Your task to perform on an android device: Search for Mexican restaurants on Maps Image 0: 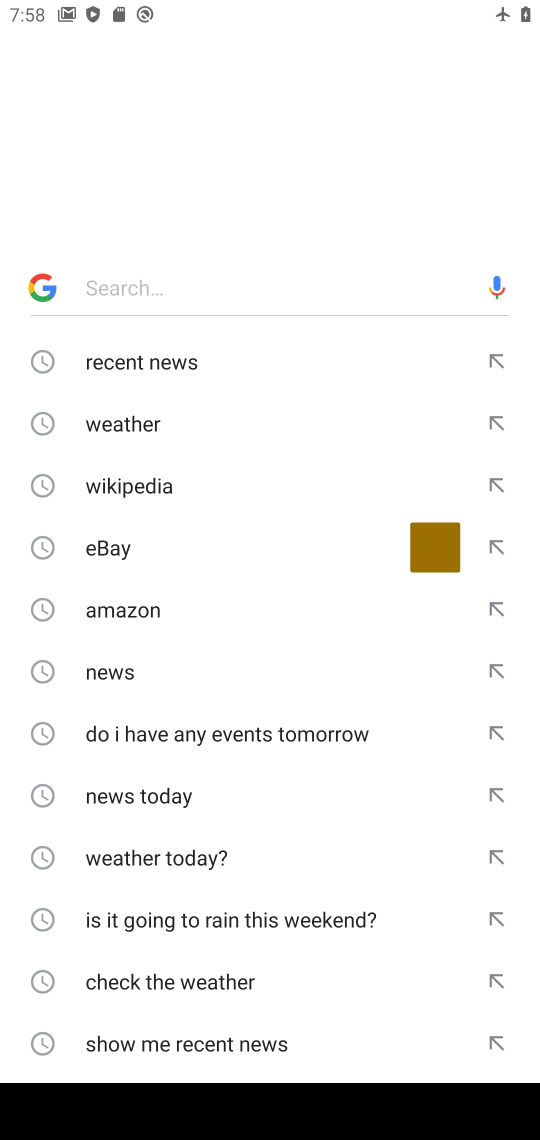
Step 0: press home button
Your task to perform on an android device: Search for Mexican restaurants on Maps Image 1: 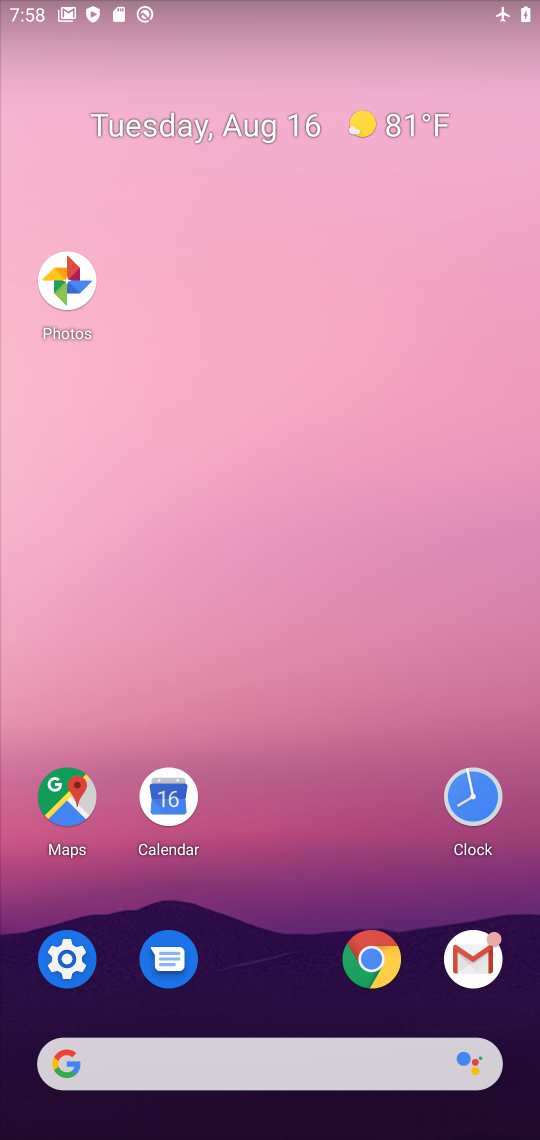
Step 1: click (60, 794)
Your task to perform on an android device: Search for Mexican restaurants on Maps Image 2: 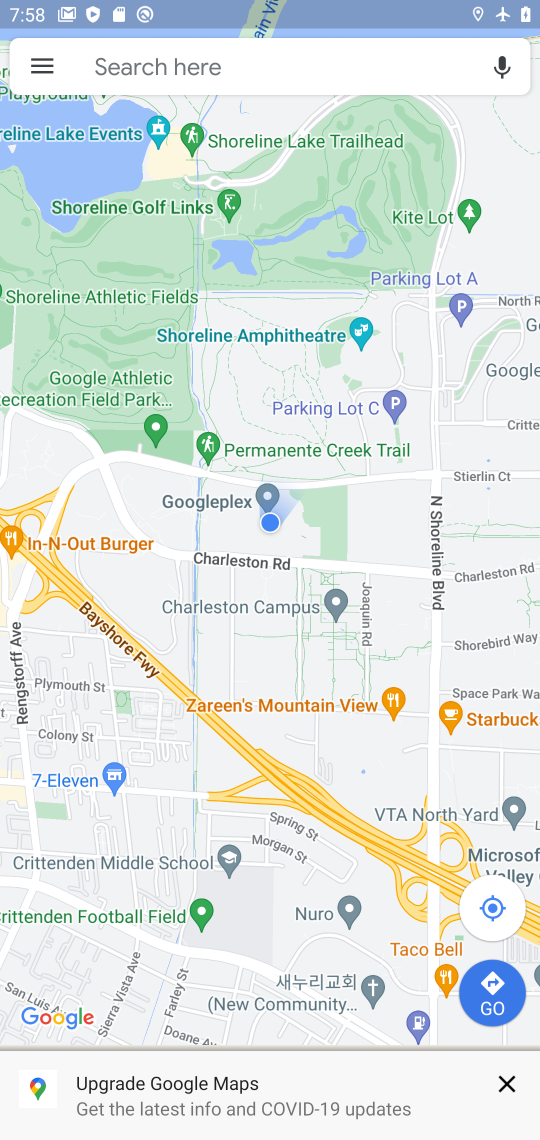
Step 2: click (173, 55)
Your task to perform on an android device: Search for Mexican restaurants on Maps Image 3: 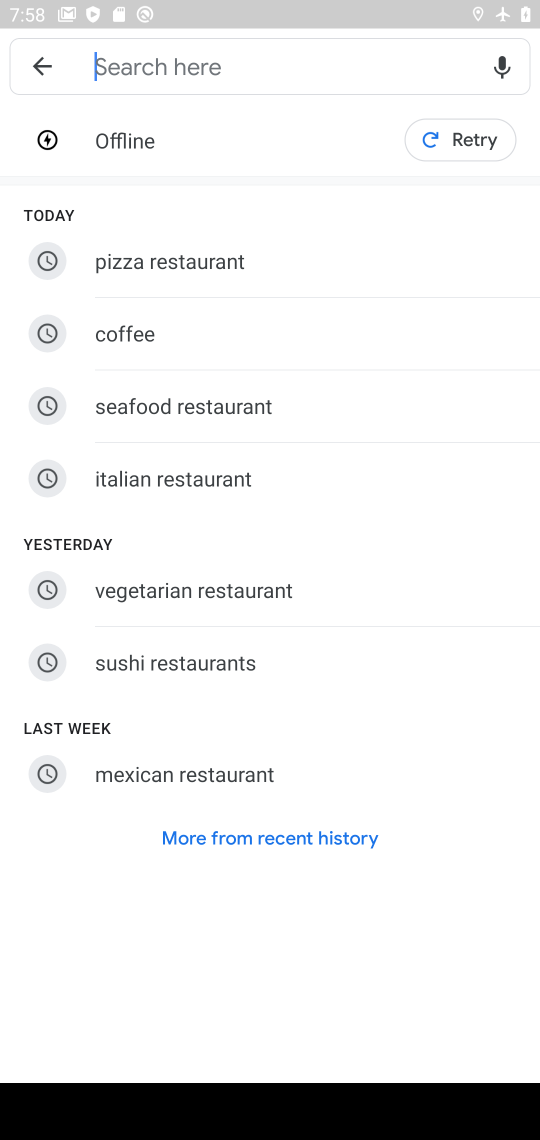
Step 3: click (178, 775)
Your task to perform on an android device: Search for Mexican restaurants on Maps Image 4: 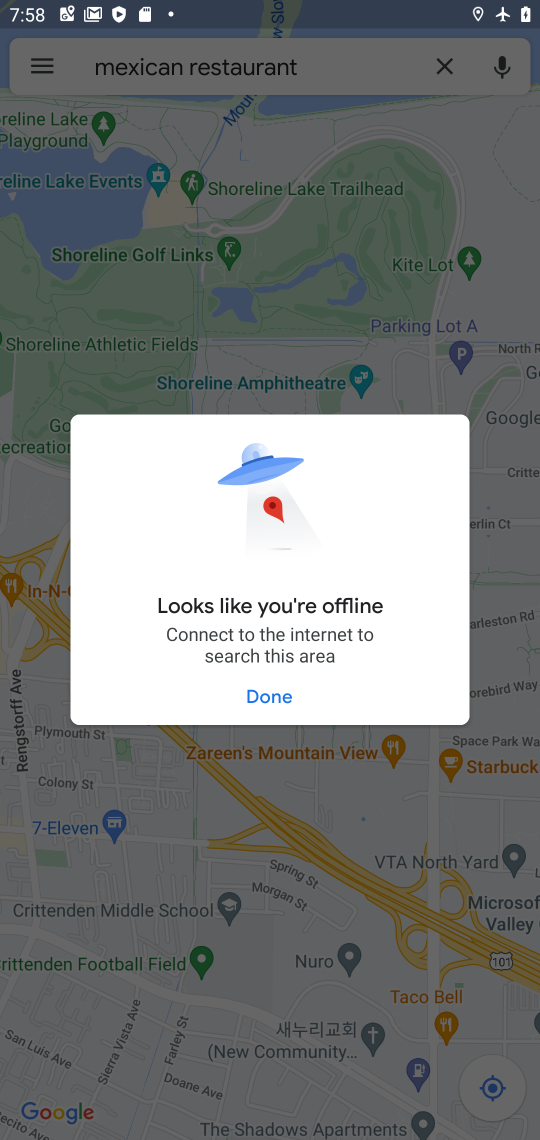
Step 4: click (261, 690)
Your task to perform on an android device: Search for Mexican restaurants on Maps Image 5: 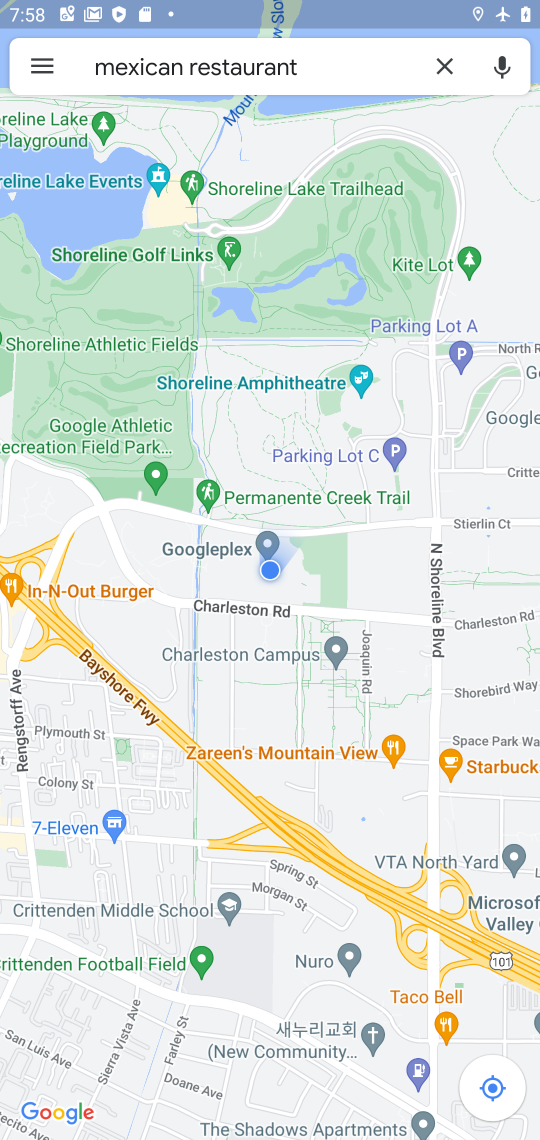
Step 5: task complete